Your task to perform on an android device: toggle sleep mode Image 0: 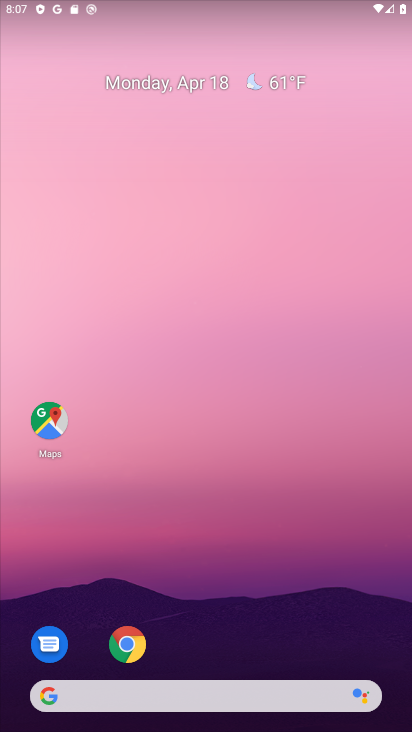
Step 0: drag from (210, 686) to (183, 185)
Your task to perform on an android device: toggle sleep mode Image 1: 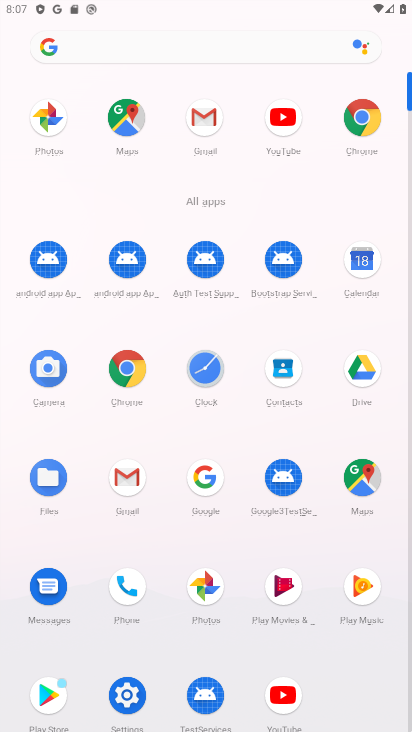
Step 1: click (125, 685)
Your task to perform on an android device: toggle sleep mode Image 2: 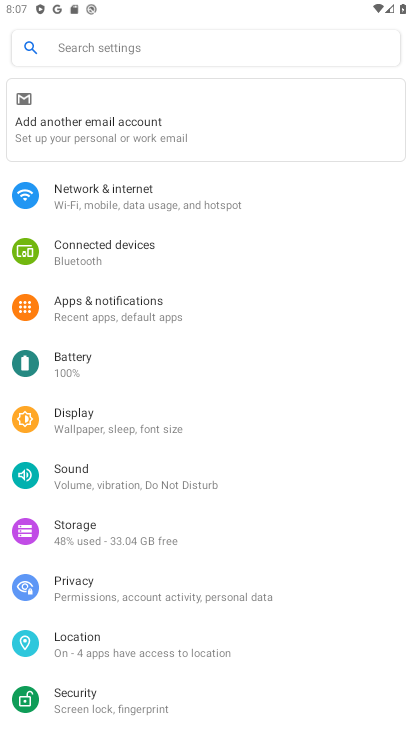
Step 2: click (113, 429)
Your task to perform on an android device: toggle sleep mode Image 3: 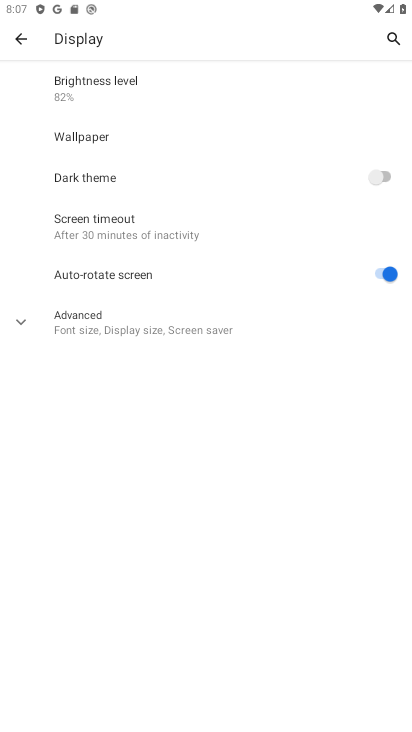
Step 3: click (147, 322)
Your task to perform on an android device: toggle sleep mode Image 4: 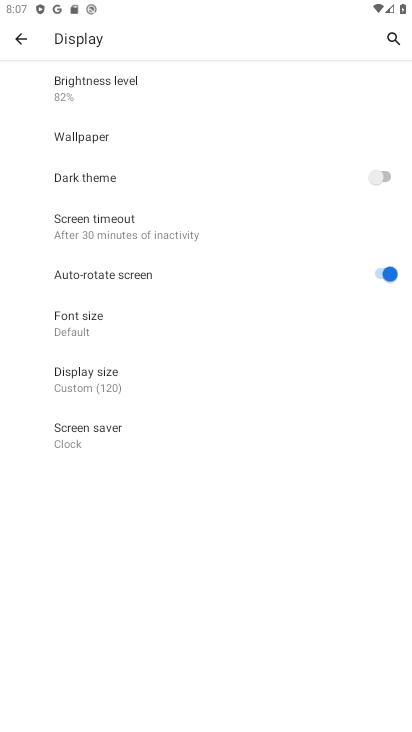
Step 4: task complete